Your task to perform on an android device: Show me recent news Image 0: 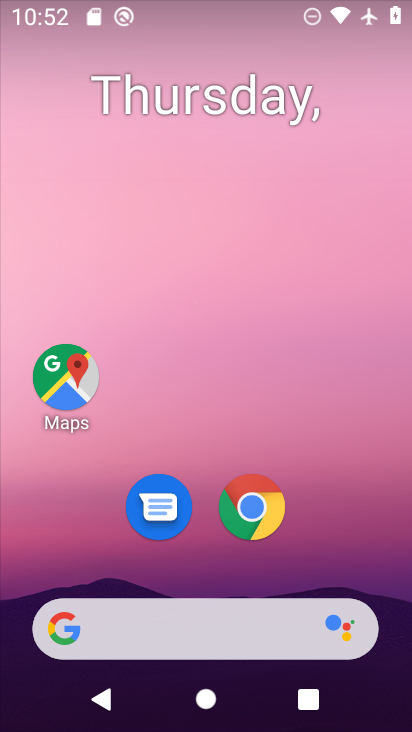
Step 0: drag from (355, 429) to (323, 14)
Your task to perform on an android device: Show me recent news Image 1: 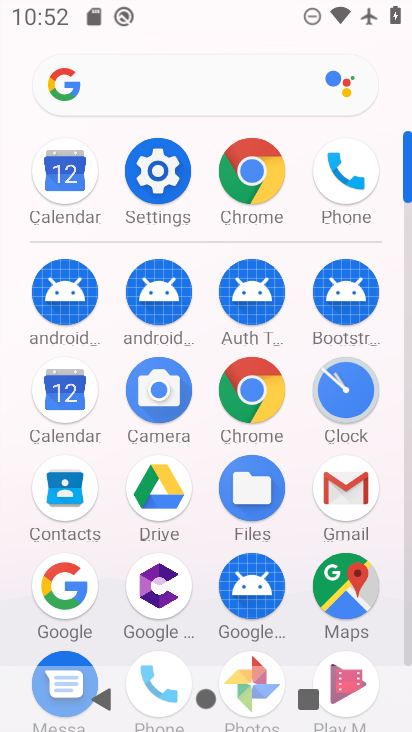
Step 1: click (255, 168)
Your task to perform on an android device: Show me recent news Image 2: 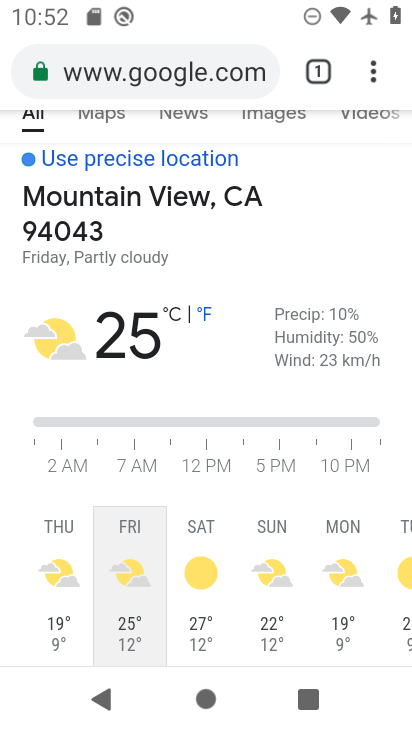
Step 2: click (160, 74)
Your task to perform on an android device: Show me recent news Image 3: 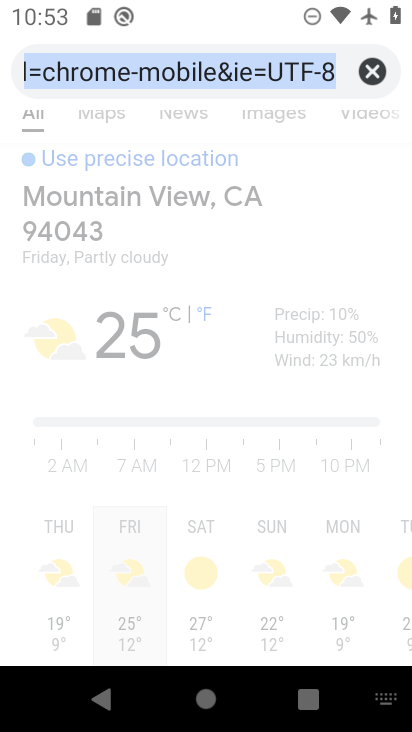
Step 3: click (371, 69)
Your task to perform on an android device: Show me recent news Image 4: 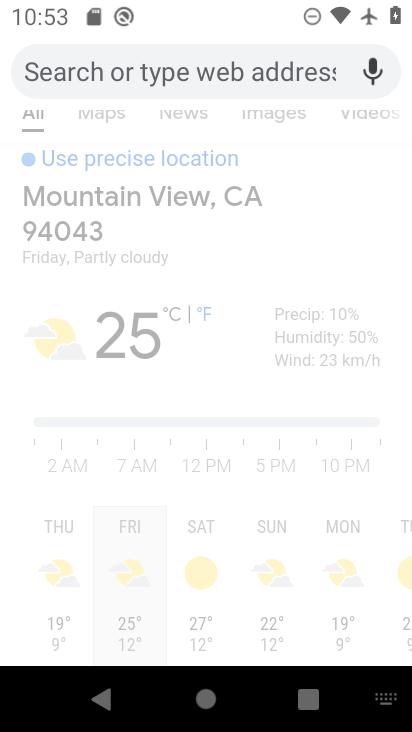
Step 4: type "Show me recent news"
Your task to perform on an android device: Show me recent news Image 5: 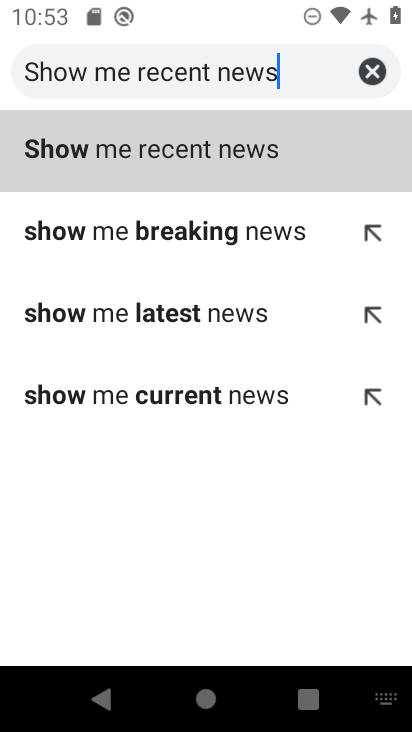
Step 5: type ""
Your task to perform on an android device: Show me recent news Image 6: 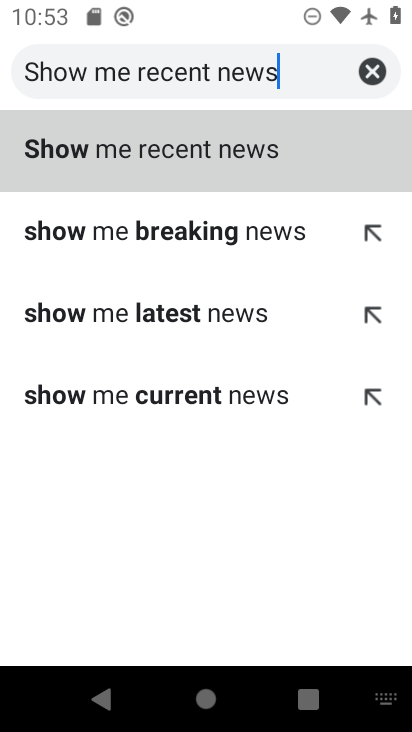
Step 6: click (146, 160)
Your task to perform on an android device: Show me recent news Image 7: 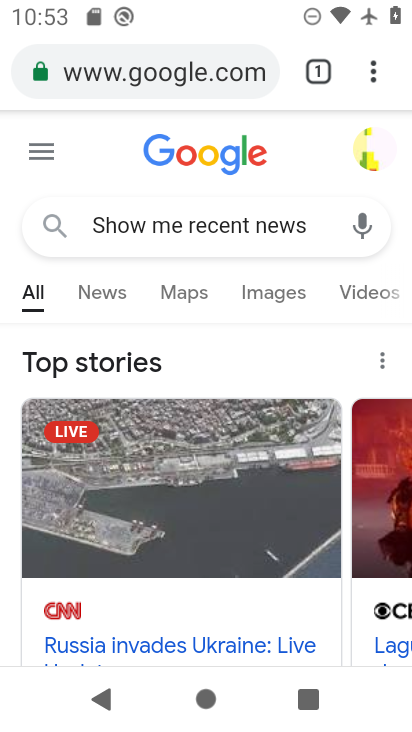
Step 7: task complete